Your task to perform on an android device: Toggle the flashlight Image 0: 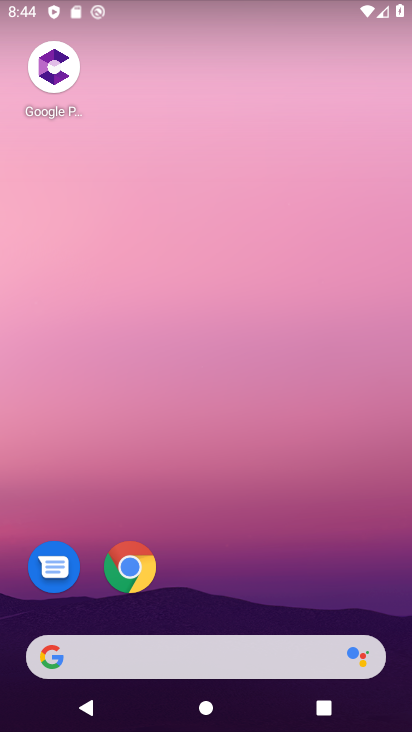
Step 0: drag from (281, 527) to (190, 13)
Your task to perform on an android device: Toggle the flashlight Image 1: 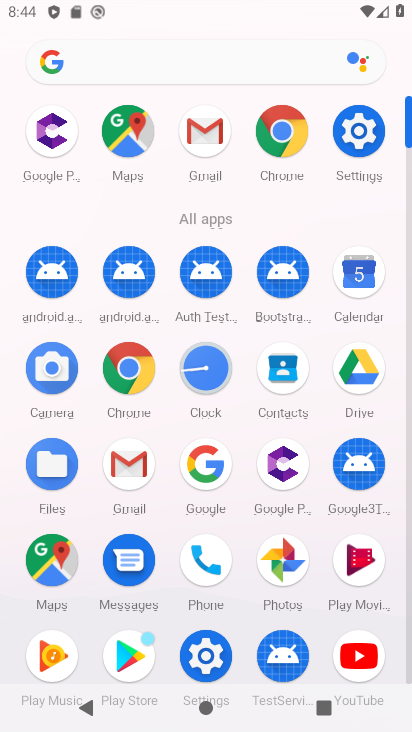
Step 1: drag from (222, 360) to (219, 118)
Your task to perform on an android device: Toggle the flashlight Image 2: 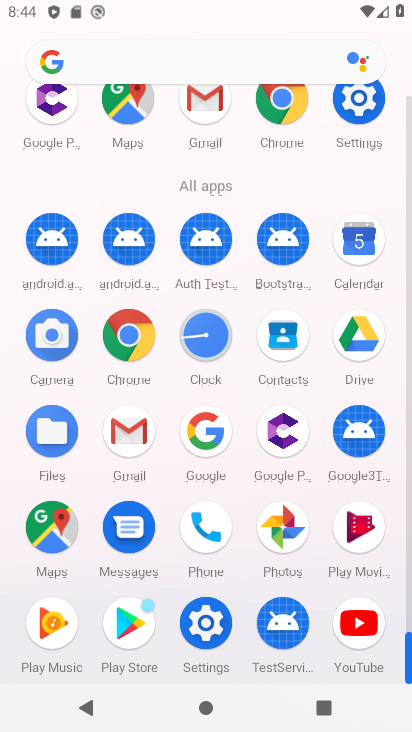
Step 2: click (359, 99)
Your task to perform on an android device: Toggle the flashlight Image 3: 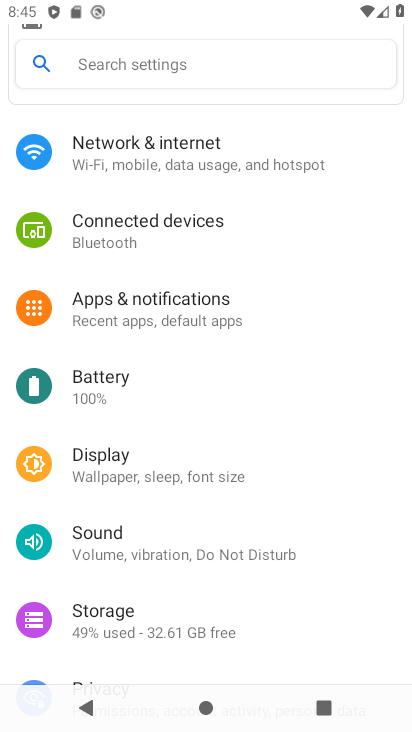
Step 3: drag from (159, 535) to (136, 415)
Your task to perform on an android device: Toggle the flashlight Image 4: 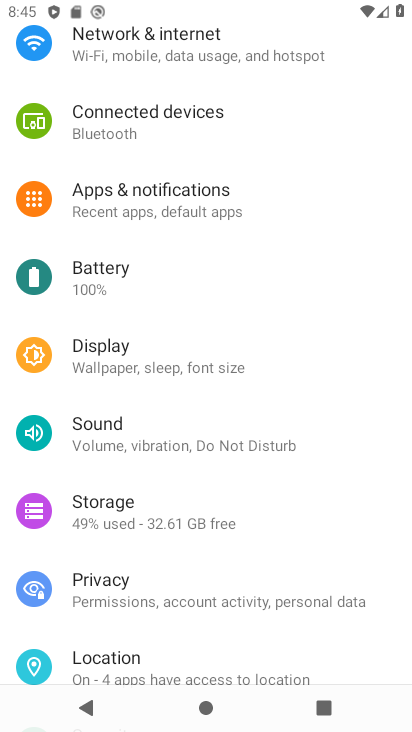
Step 4: click (190, 464)
Your task to perform on an android device: Toggle the flashlight Image 5: 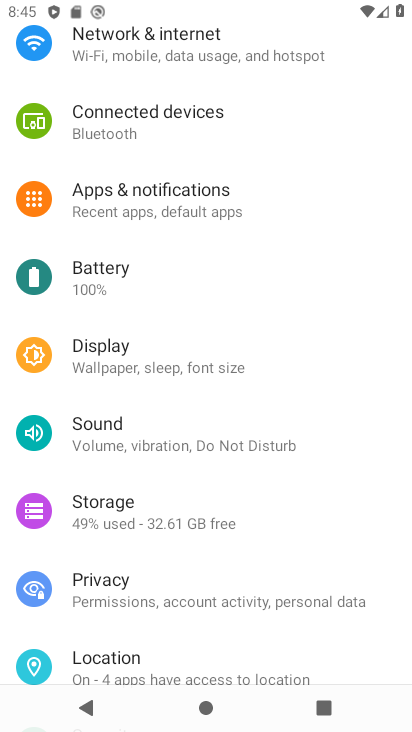
Step 5: drag from (167, 548) to (123, 422)
Your task to perform on an android device: Toggle the flashlight Image 6: 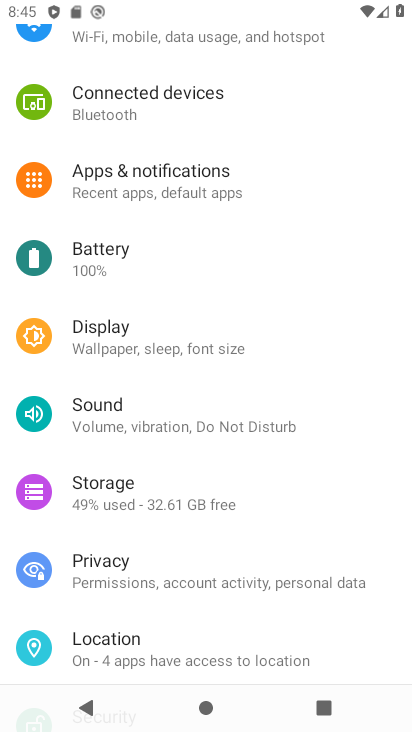
Step 6: drag from (131, 448) to (109, 409)
Your task to perform on an android device: Toggle the flashlight Image 7: 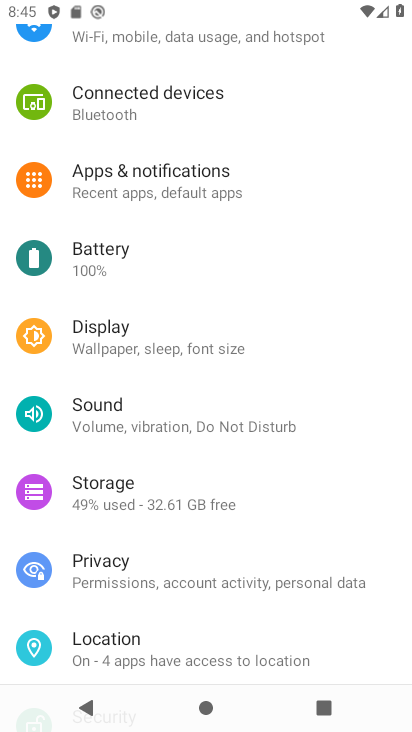
Step 7: drag from (190, 611) to (176, 493)
Your task to perform on an android device: Toggle the flashlight Image 8: 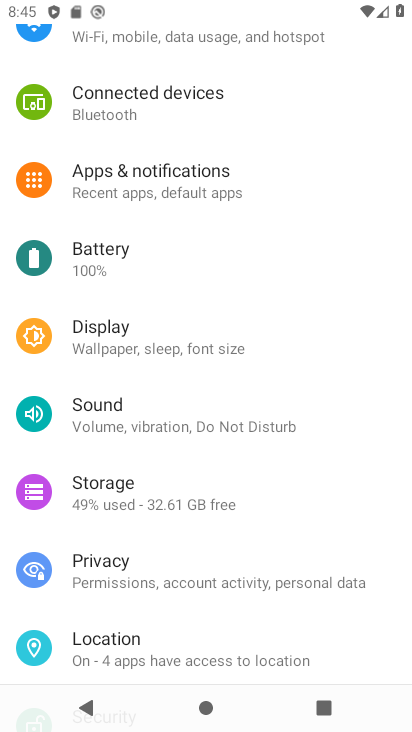
Step 8: drag from (212, 448) to (204, 390)
Your task to perform on an android device: Toggle the flashlight Image 9: 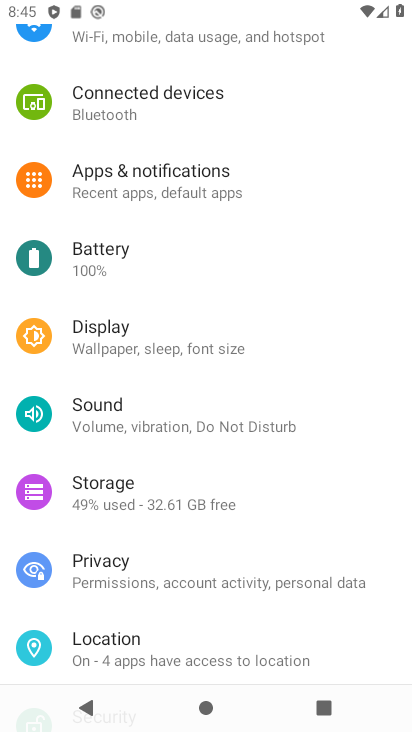
Step 9: click (191, 346)
Your task to perform on an android device: Toggle the flashlight Image 10: 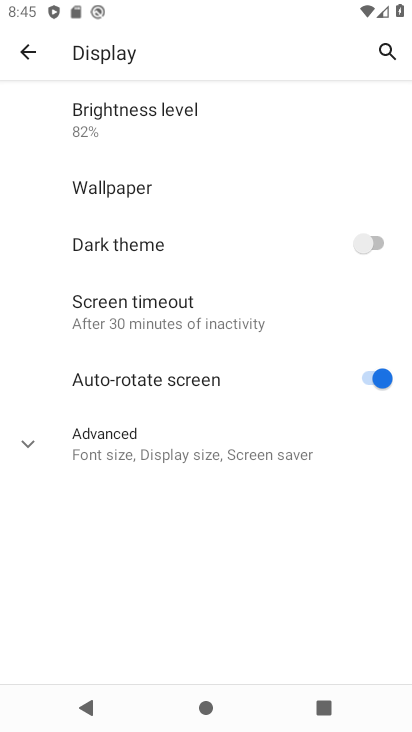
Step 10: click (153, 457)
Your task to perform on an android device: Toggle the flashlight Image 11: 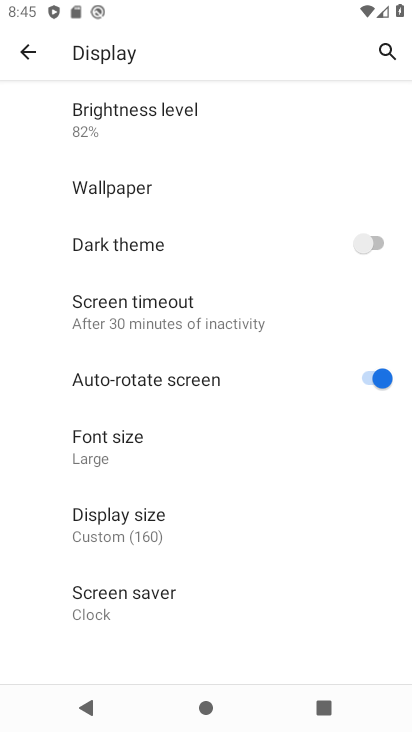
Step 11: task complete